Your task to perform on an android device: Open calendar and show me the first week of next month Image 0: 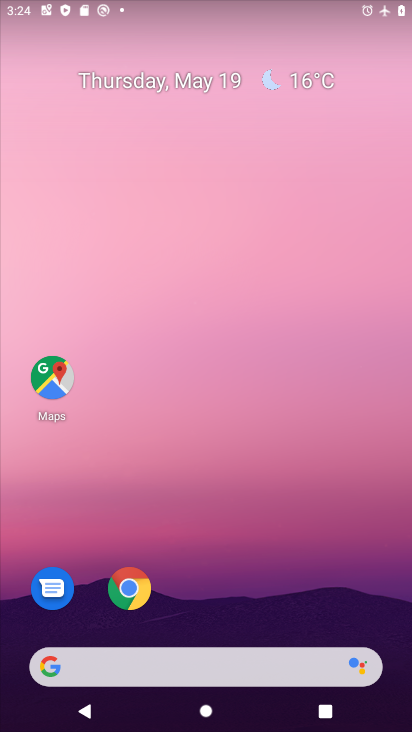
Step 0: drag from (280, 648) to (254, 107)
Your task to perform on an android device: Open calendar and show me the first week of next month Image 1: 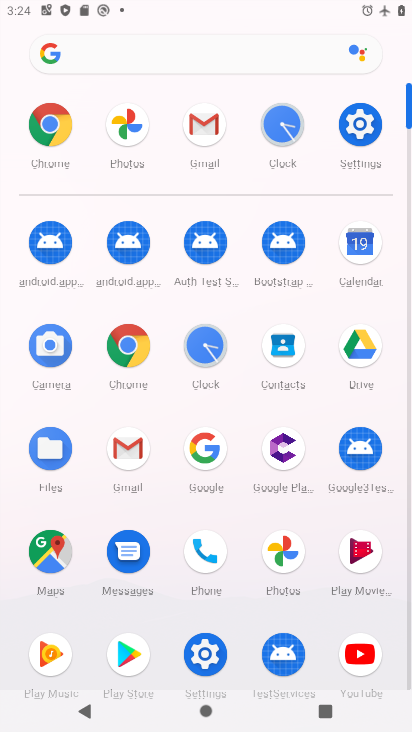
Step 1: click (359, 244)
Your task to perform on an android device: Open calendar and show me the first week of next month Image 2: 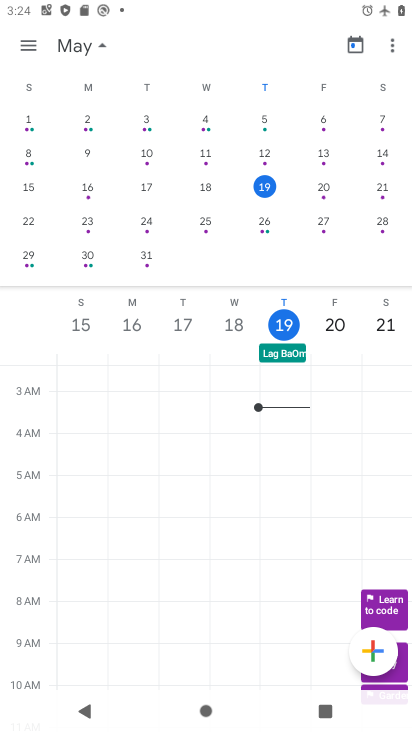
Step 2: click (97, 221)
Your task to perform on an android device: Open calendar and show me the first week of next month Image 3: 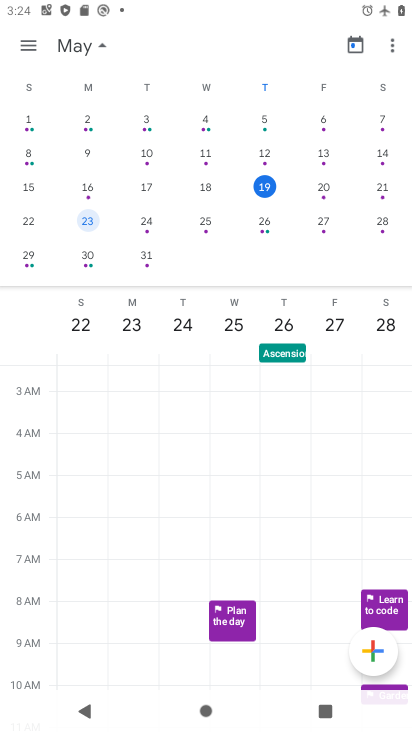
Step 3: click (100, 222)
Your task to perform on an android device: Open calendar and show me the first week of next month Image 4: 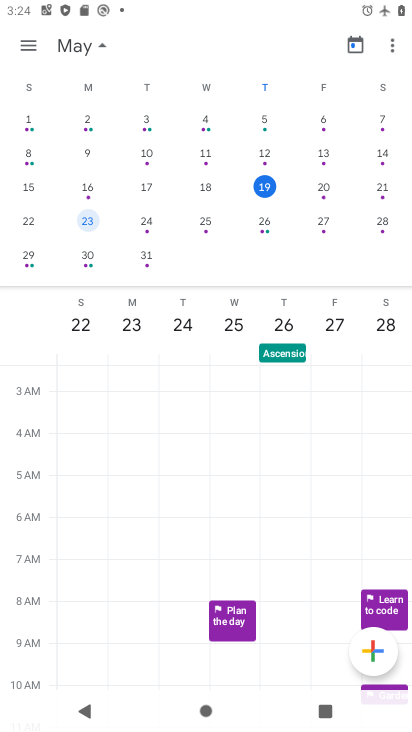
Step 4: task complete